Your task to perform on an android device: Go to sound settings Image 0: 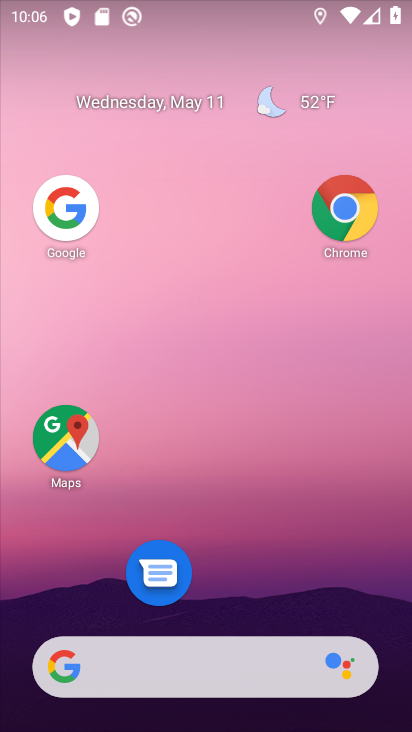
Step 0: drag from (239, 632) to (303, 2)
Your task to perform on an android device: Go to sound settings Image 1: 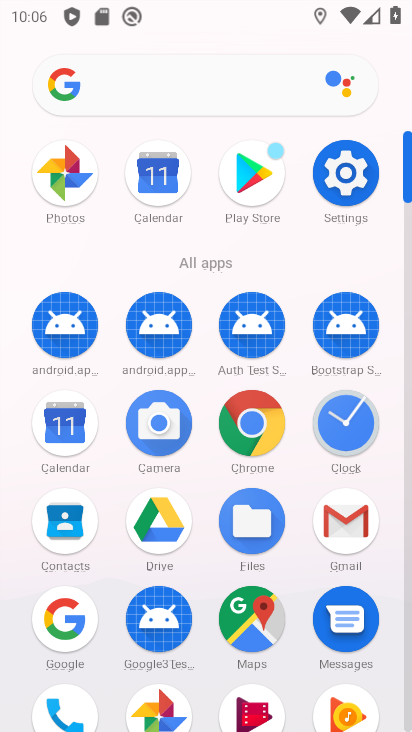
Step 1: click (336, 164)
Your task to perform on an android device: Go to sound settings Image 2: 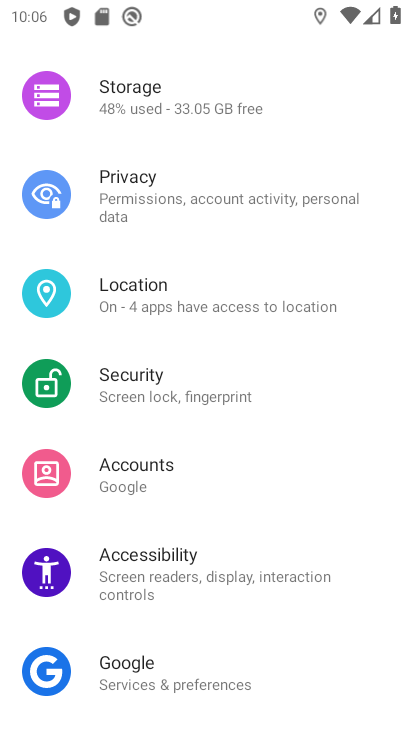
Step 2: drag from (226, 161) to (240, 553)
Your task to perform on an android device: Go to sound settings Image 3: 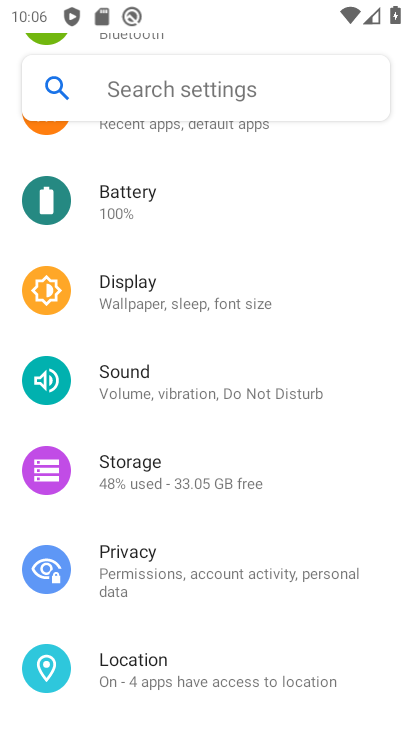
Step 3: click (148, 397)
Your task to perform on an android device: Go to sound settings Image 4: 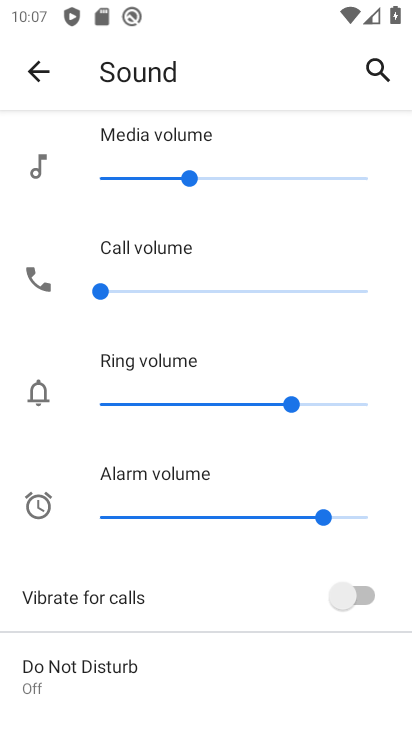
Step 4: task complete